Your task to perform on an android device: turn on translation in the chrome app Image 0: 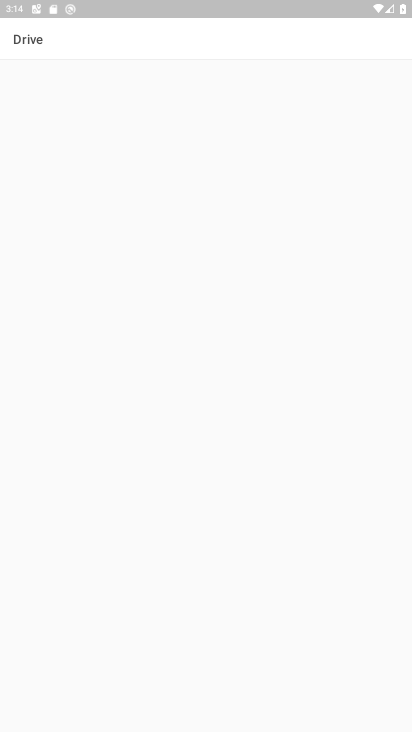
Step 0: press home button
Your task to perform on an android device: turn on translation in the chrome app Image 1: 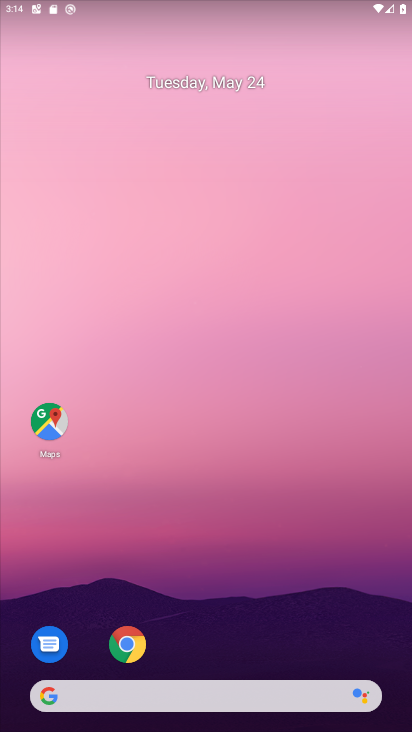
Step 1: click (116, 651)
Your task to perform on an android device: turn on translation in the chrome app Image 2: 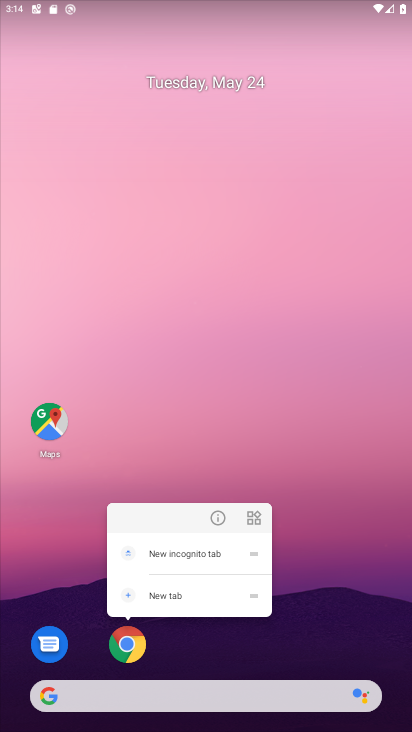
Step 2: click (133, 660)
Your task to perform on an android device: turn on translation in the chrome app Image 3: 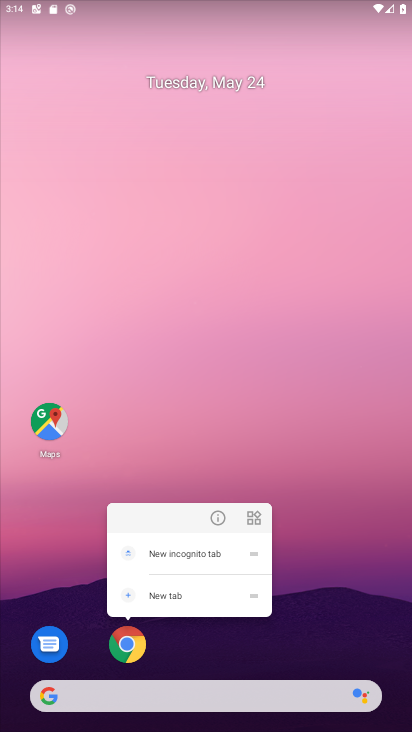
Step 3: click (133, 660)
Your task to perform on an android device: turn on translation in the chrome app Image 4: 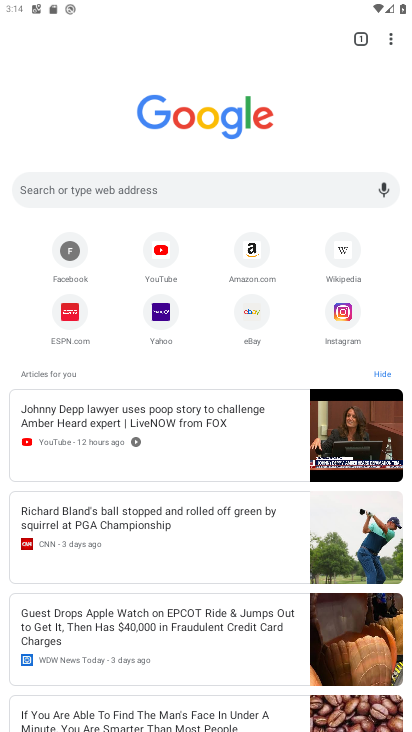
Step 4: click (384, 45)
Your task to perform on an android device: turn on translation in the chrome app Image 5: 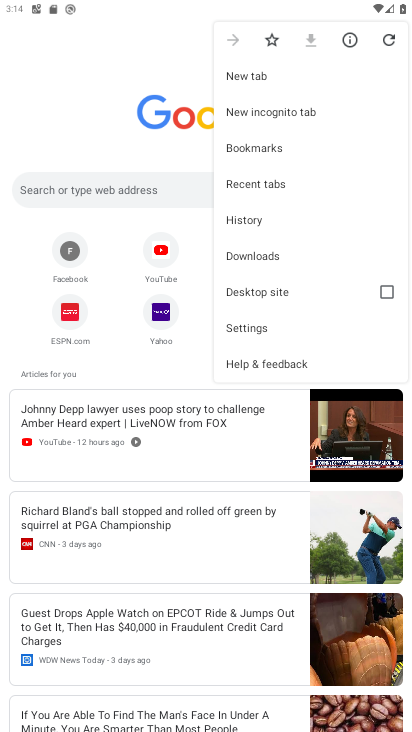
Step 5: click (288, 333)
Your task to perform on an android device: turn on translation in the chrome app Image 6: 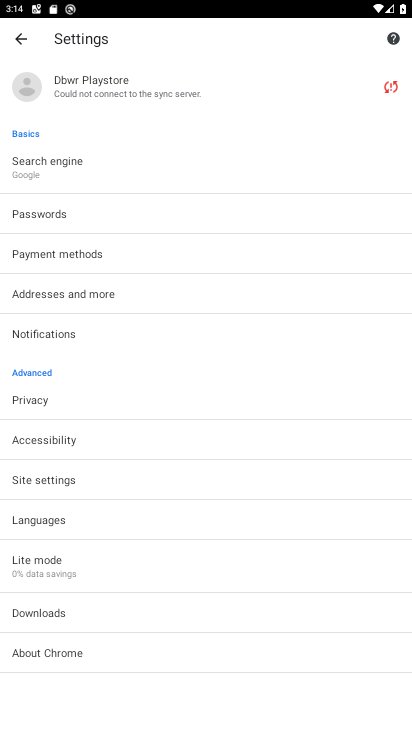
Step 6: click (143, 487)
Your task to perform on an android device: turn on translation in the chrome app Image 7: 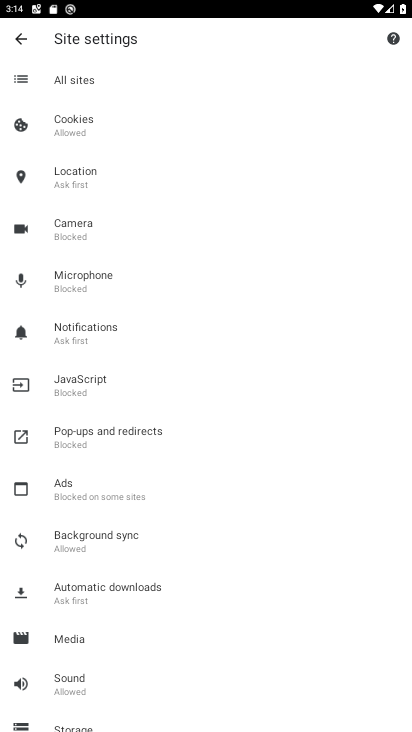
Step 7: click (84, 384)
Your task to perform on an android device: turn on translation in the chrome app Image 8: 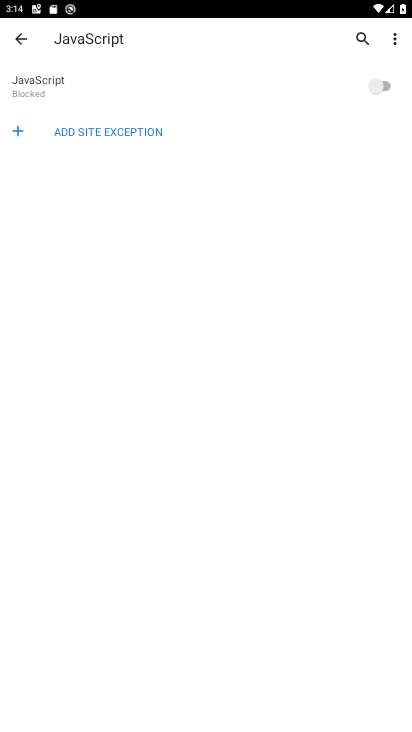
Step 8: click (19, 33)
Your task to perform on an android device: turn on translation in the chrome app Image 9: 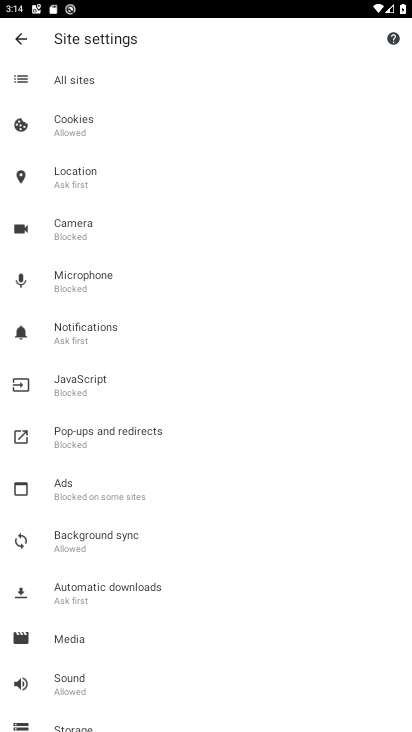
Step 9: click (23, 30)
Your task to perform on an android device: turn on translation in the chrome app Image 10: 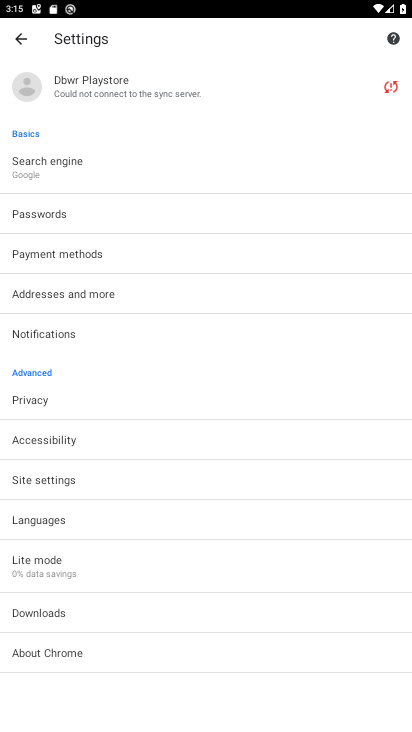
Step 10: click (133, 527)
Your task to perform on an android device: turn on translation in the chrome app Image 11: 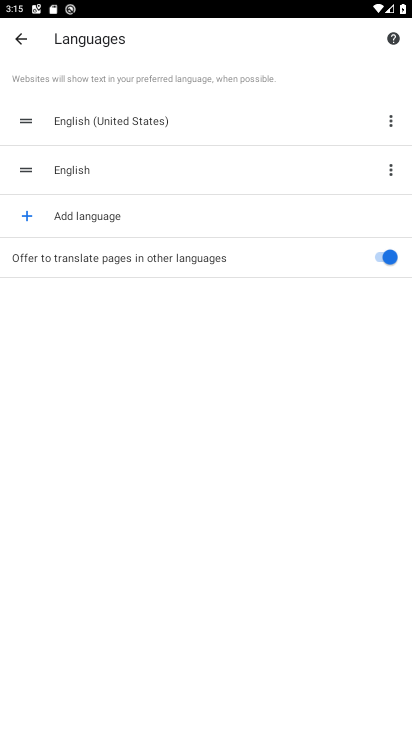
Step 11: click (362, 248)
Your task to perform on an android device: turn on translation in the chrome app Image 12: 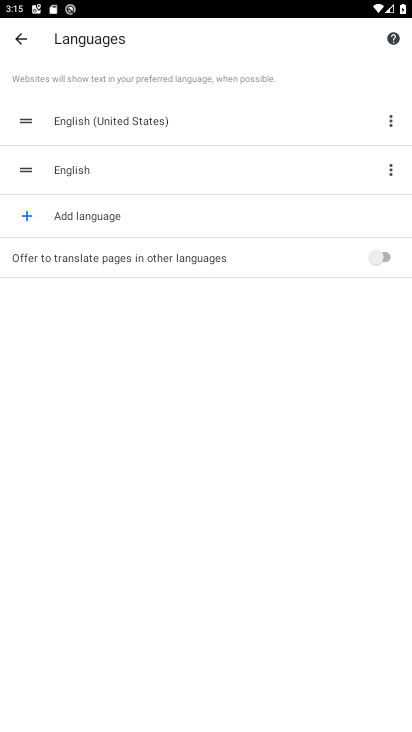
Step 12: task complete